Your task to perform on an android device: toggle priority inbox in the gmail app Image 0: 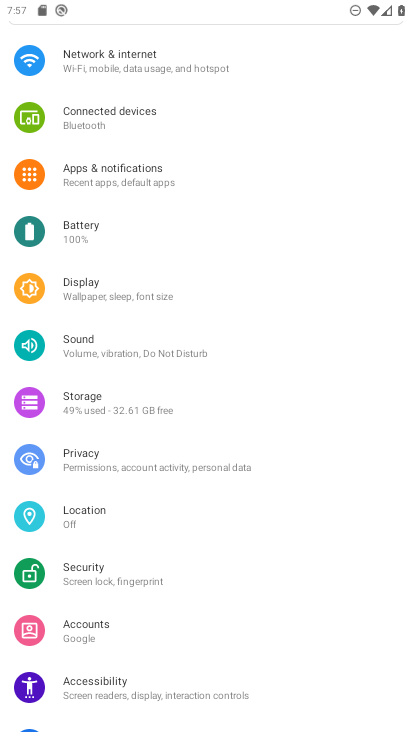
Step 0: press home button
Your task to perform on an android device: toggle priority inbox in the gmail app Image 1: 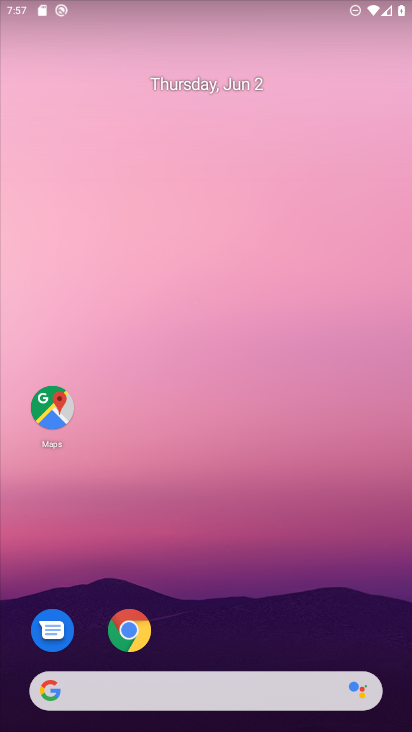
Step 1: drag from (114, 714) to (157, 24)
Your task to perform on an android device: toggle priority inbox in the gmail app Image 2: 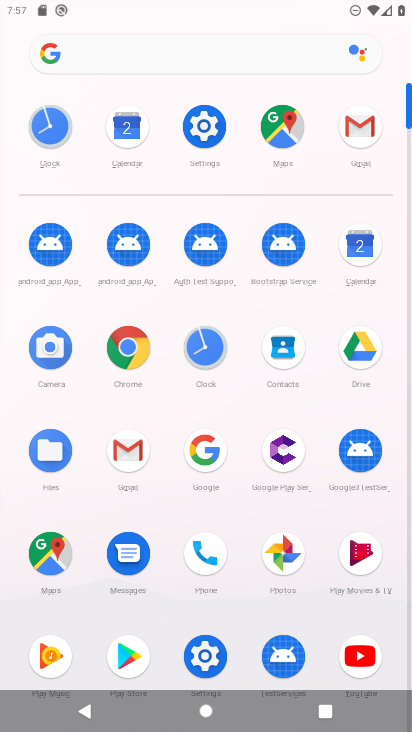
Step 2: click (138, 465)
Your task to perform on an android device: toggle priority inbox in the gmail app Image 3: 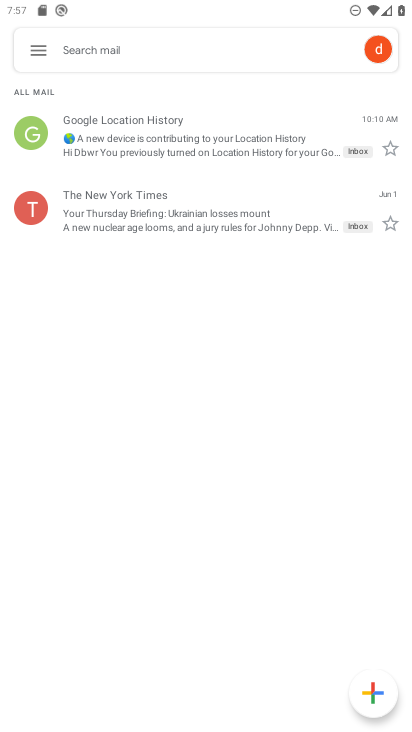
Step 3: click (39, 47)
Your task to perform on an android device: toggle priority inbox in the gmail app Image 4: 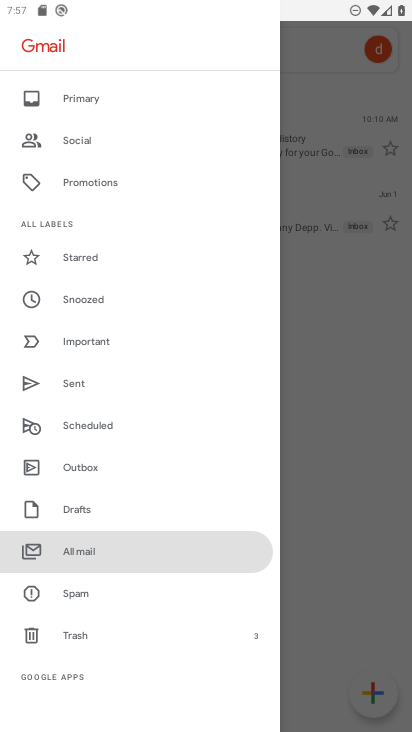
Step 4: drag from (132, 676) to (147, 499)
Your task to perform on an android device: toggle priority inbox in the gmail app Image 5: 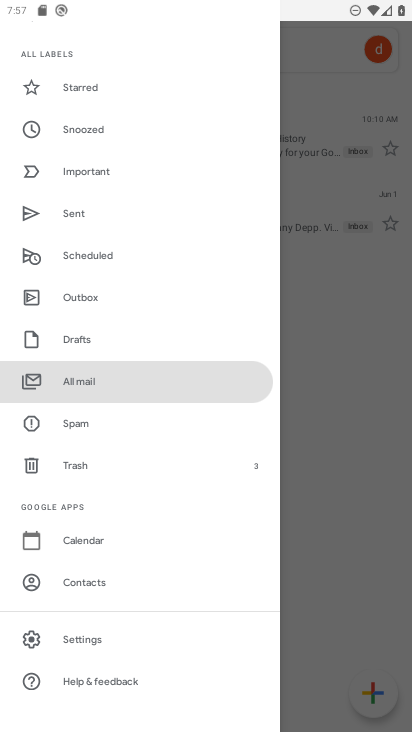
Step 5: click (71, 632)
Your task to perform on an android device: toggle priority inbox in the gmail app Image 6: 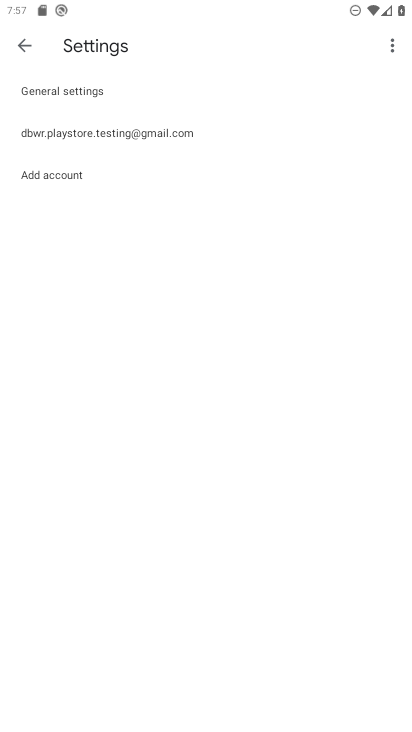
Step 6: click (127, 138)
Your task to perform on an android device: toggle priority inbox in the gmail app Image 7: 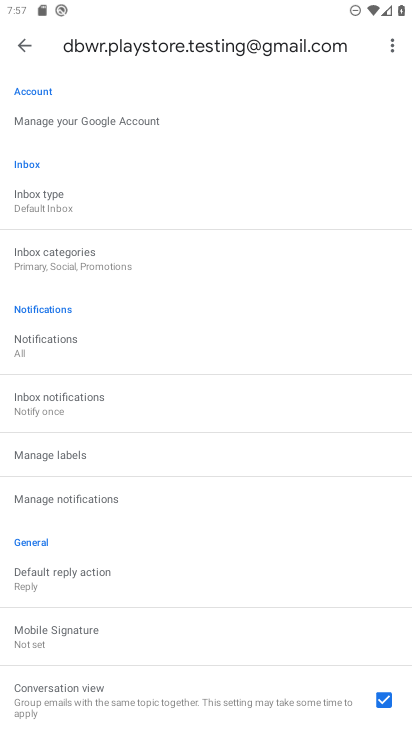
Step 7: click (62, 212)
Your task to perform on an android device: toggle priority inbox in the gmail app Image 8: 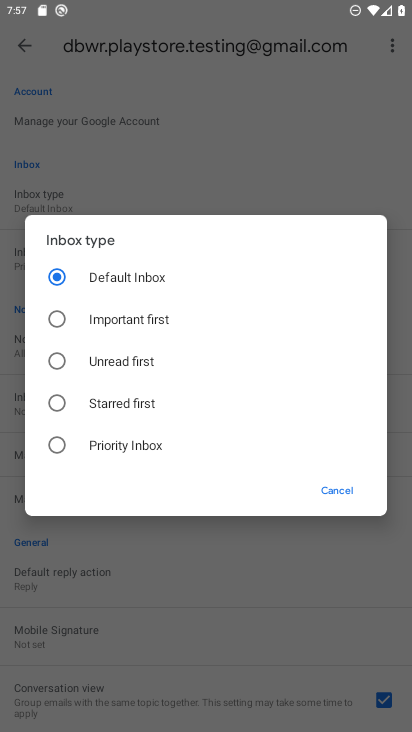
Step 8: click (107, 451)
Your task to perform on an android device: toggle priority inbox in the gmail app Image 9: 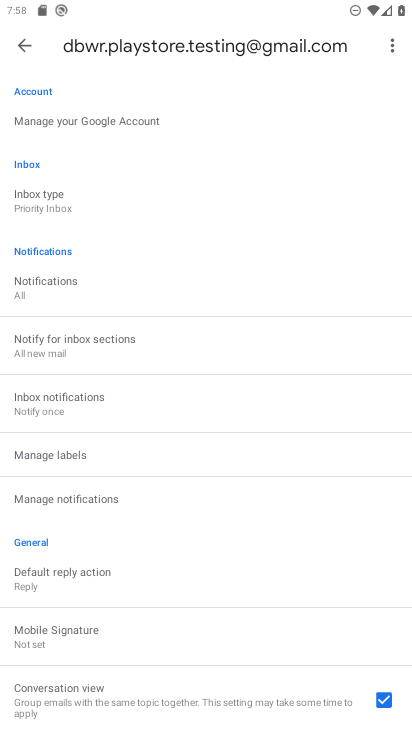
Step 9: task complete